Your task to perform on an android device: Is it going to rain this weekend? Image 0: 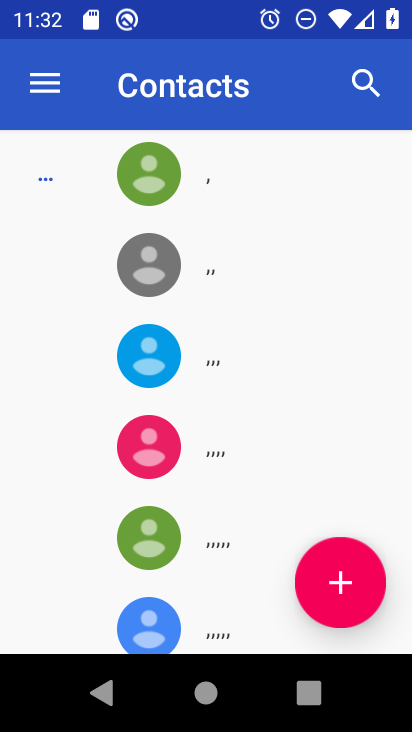
Step 0: press home button
Your task to perform on an android device: Is it going to rain this weekend? Image 1: 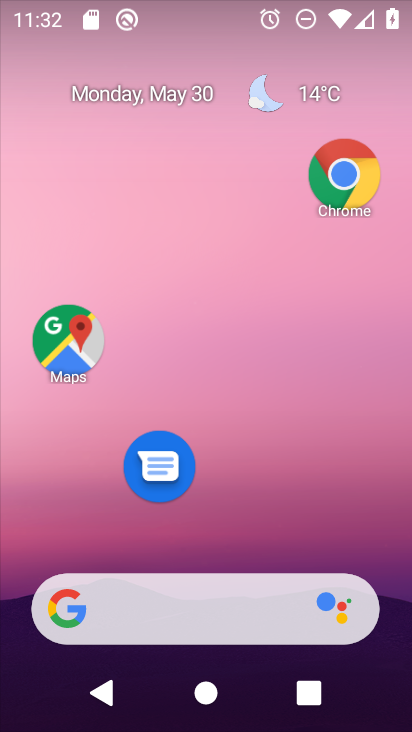
Step 1: click (282, 610)
Your task to perform on an android device: Is it going to rain this weekend? Image 2: 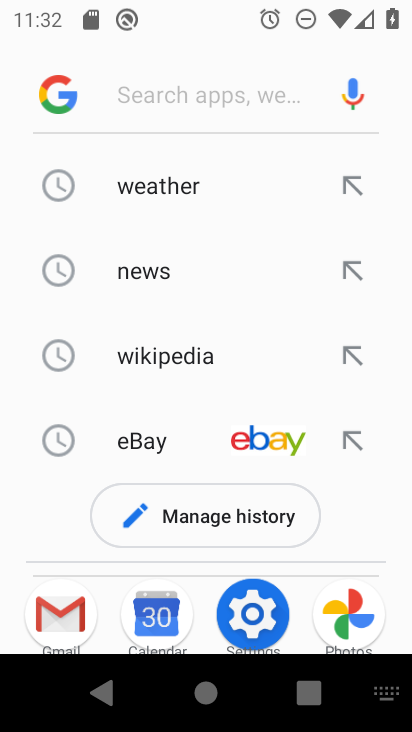
Step 2: click (79, 179)
Your task to perform on an android device: Is it going to rain this weekend? Image 3: 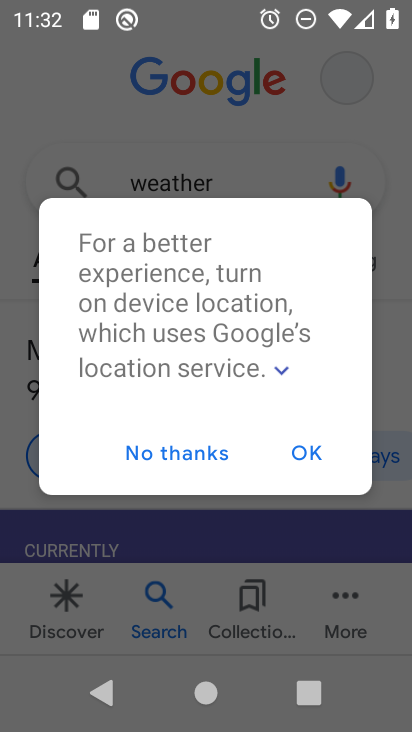
Step 3: click (114, 265)
Your task to perform on an android device: Is it going to rain this weekend? Image 4: 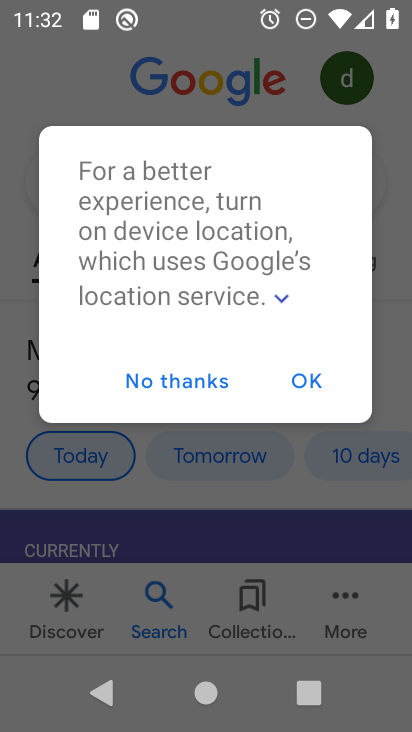
Step 4: click (156, 465)
Your task to perform on an android device: Is it going to rain this weekend? Image 5: 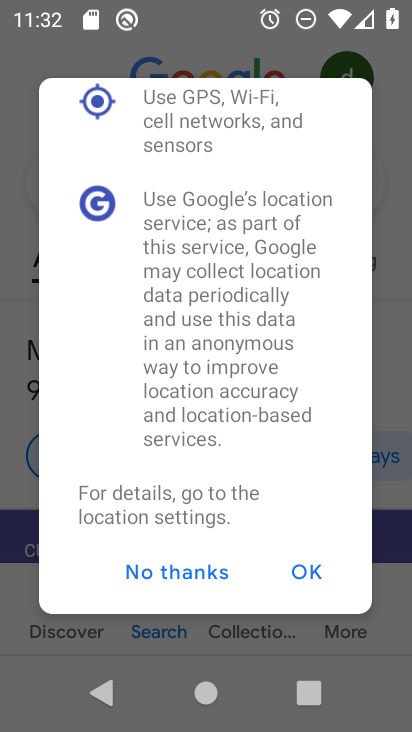
Step 5: click (171, 572)
Your task to perform on an android device: Is it going to rain this weekend? Image 6: 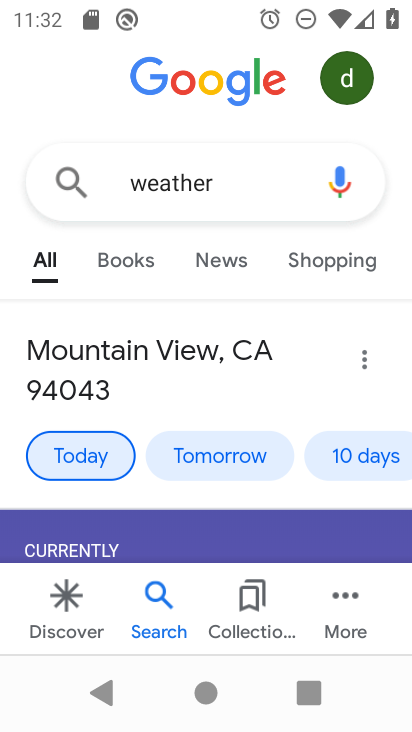
Step 6: drag from (243, 442) to (266, 236)
Your task to perform on an android device: Is it going to rain this weekend? Image 7: 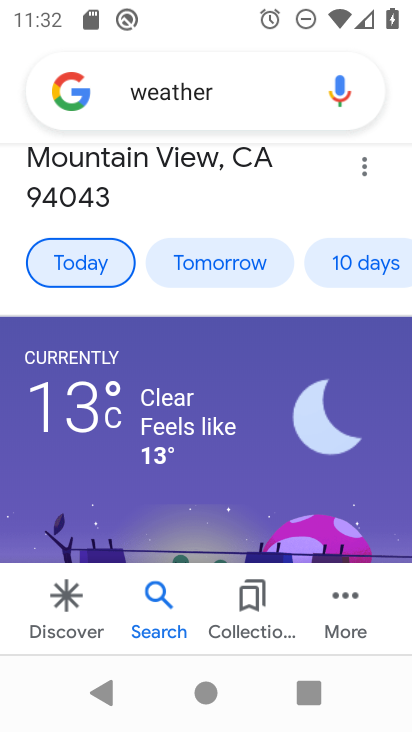
Step 7: click (335, 287)
Your task to perform on an android device: Is it going to rain this weekend? Image 8: 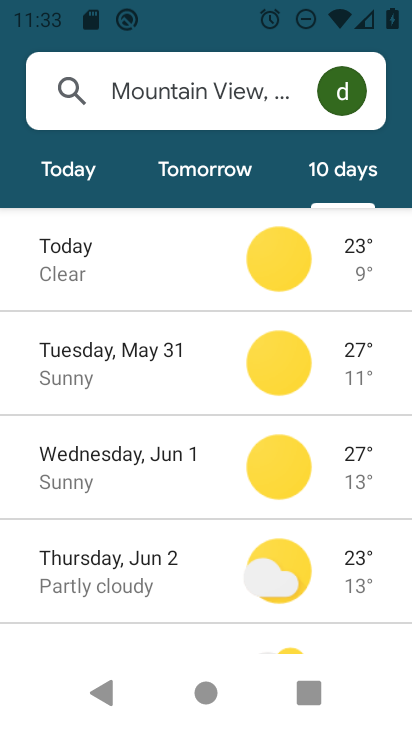
Step 8: task complete